Your task to perform on an android device: read, delete, or share a saved page in the chrome app Image 0: 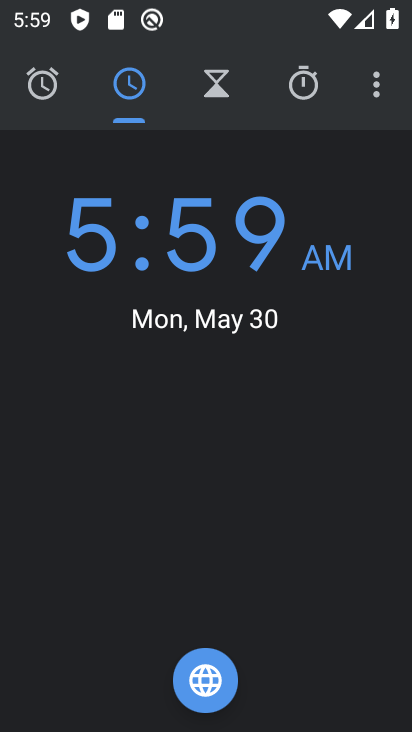
Step 0: press home button
Your task to perform on an android device: read, delete, or share a saved page in the chrome app Image 1: 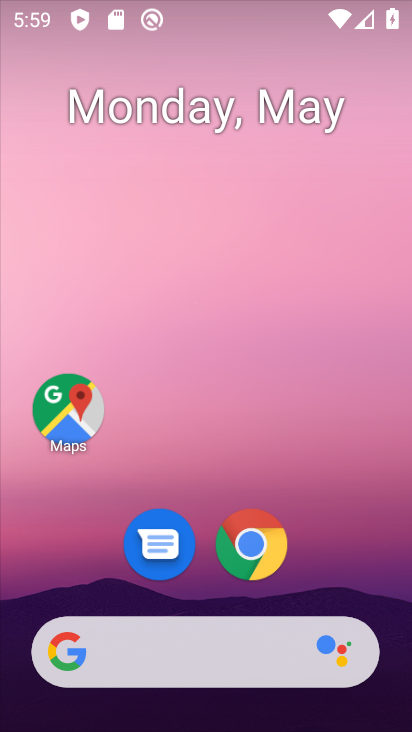
Step 1: click (266, 561)
Your task to perform on an android device: read, delete, or share a saved page in the chrome app Image 2: 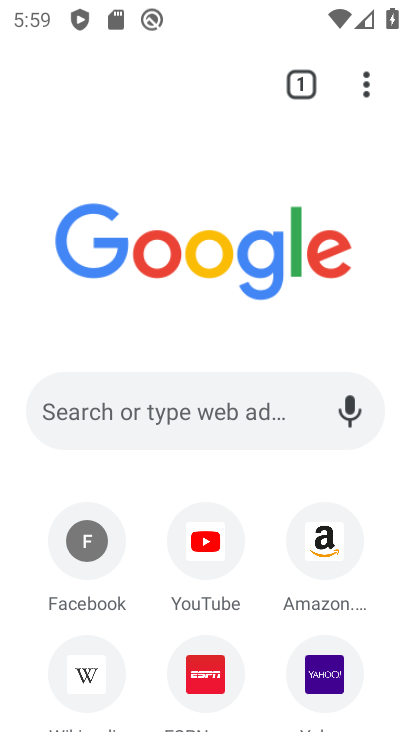
Step 2: click (370, 68)
Your task to perform on an android device: read, delete, or share a saved page in the chrome app Image 3: 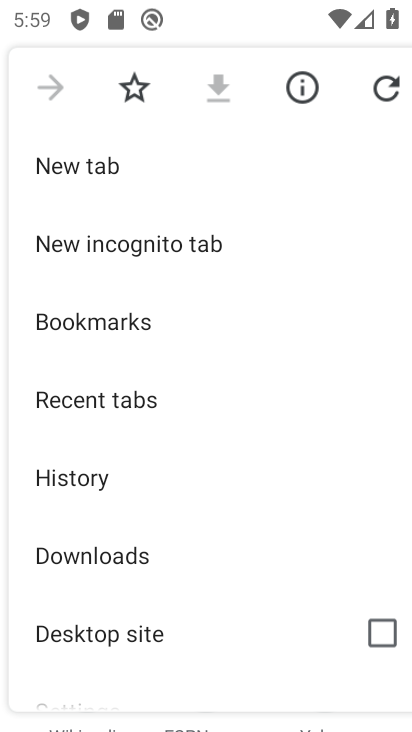
Step 3: click (172, 541)
Your task to perform on an android device: read, delete, or share a saved page in the chrome app Image 4: 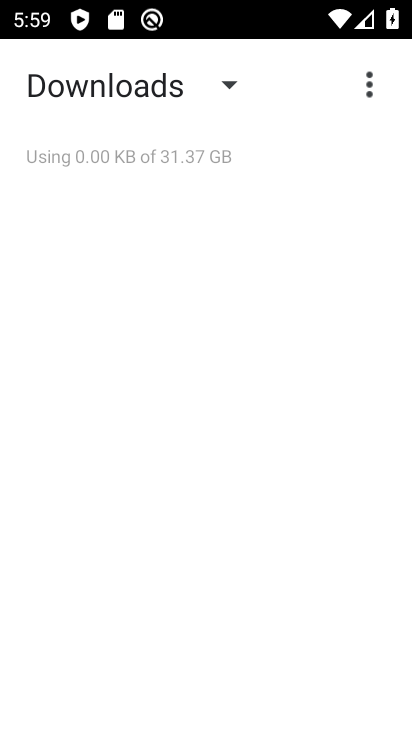
Step 4: click (79, 69)
Your task to perform on an android device: read, delete, or share a saved page in the chrome app Image 5: 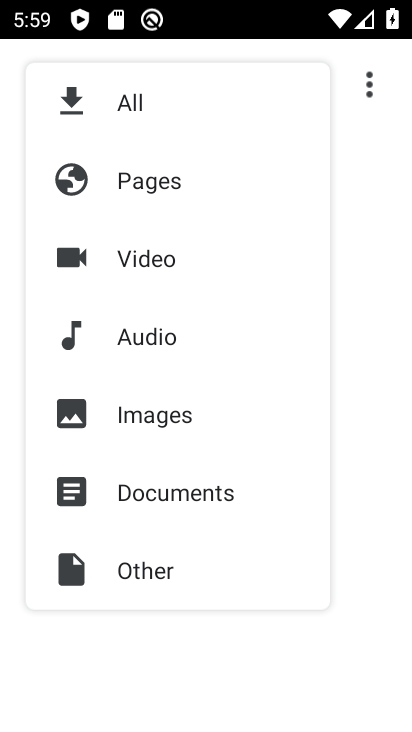
Step 5: click (135, 179)
Your task to perform on an android device: read, delete, or share a saved page in the chrome app Image 6: 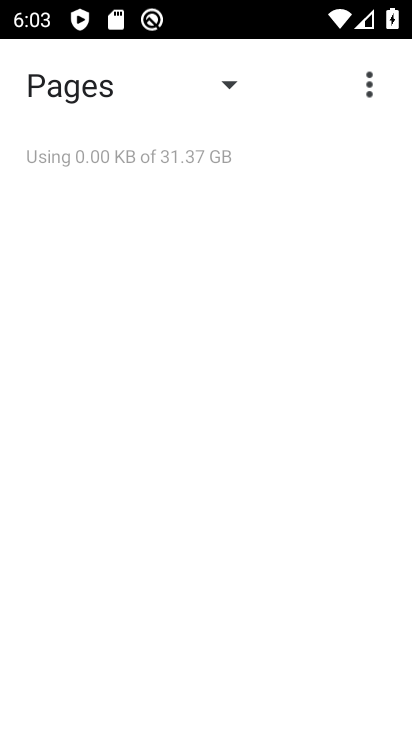
Step 6: task complete